Your task to perform on an android device: Go to CNN.com Image 0: 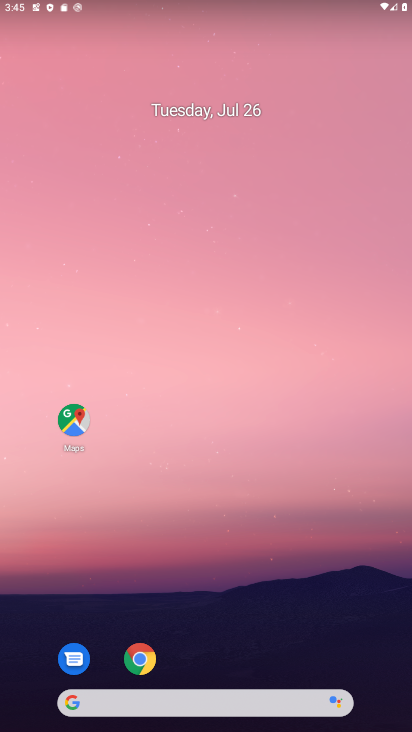
Step 0: click (143, 651)
Your task to perform on an android device: Go to CNN.com Image 1: 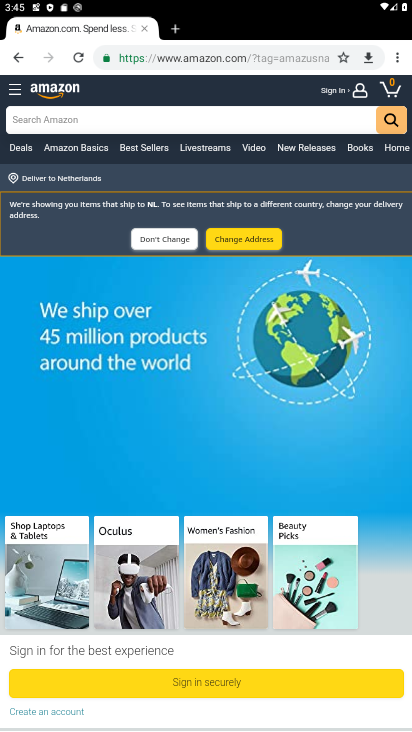
Step 1: click (278, 64)
Your task to perform on an android device: Go to CNN.com Image 2: 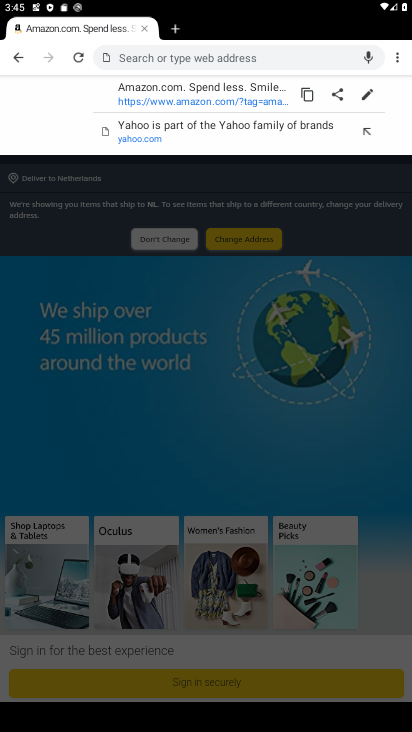
Step 2: type "CNN.com"
Your task to perform on an android device: Go to CNN.com Image 3: 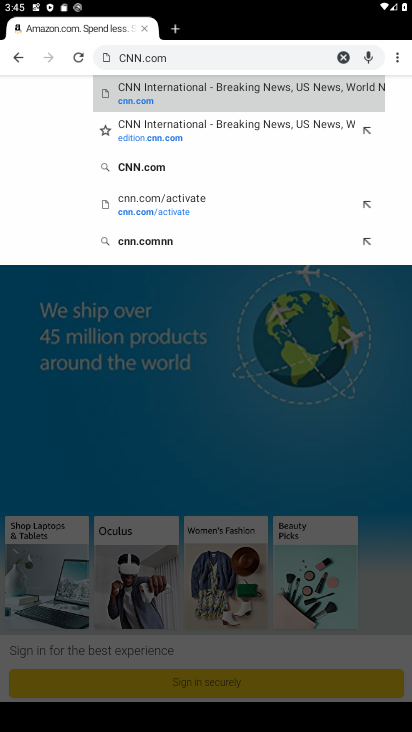
Step 3: click (272, 79)
Your task to perform on an android device: Go to CNN.com Image 4: 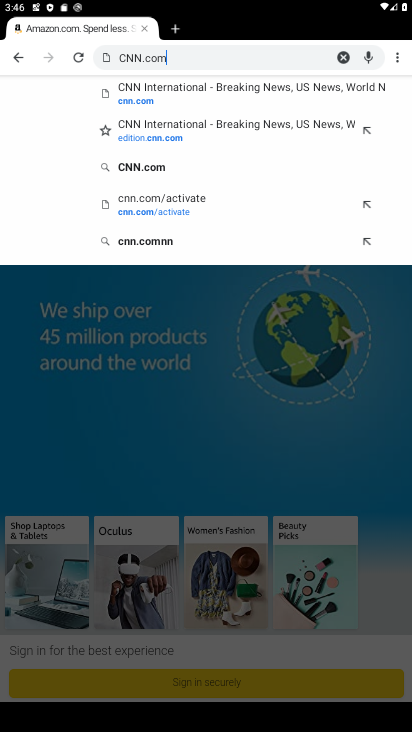
Step 4: click (222, 98)
Your task to perform on an android device: Go to CNN.com Image 5: 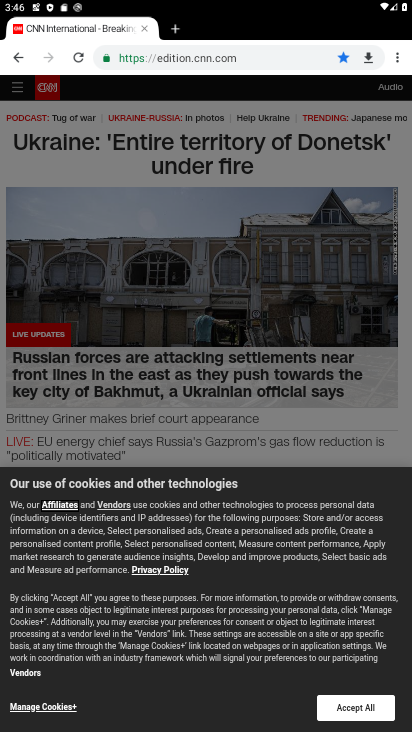
Step 5: task complete